Your task to perform on an android device: What is the news today? Image 0: 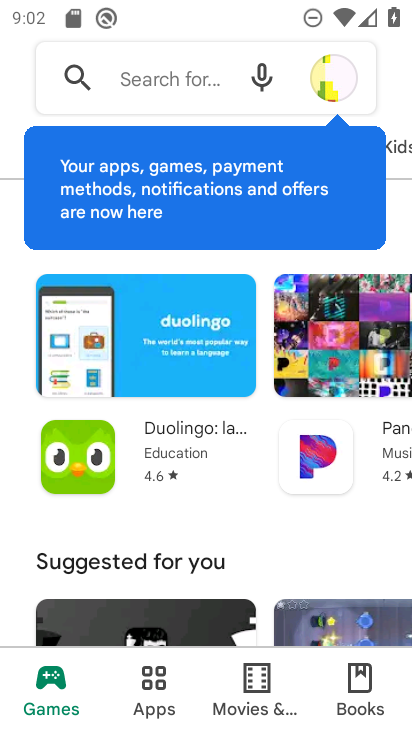
Step 0: press home button
Your task to perform on an android device: What is the news today? Image 1: 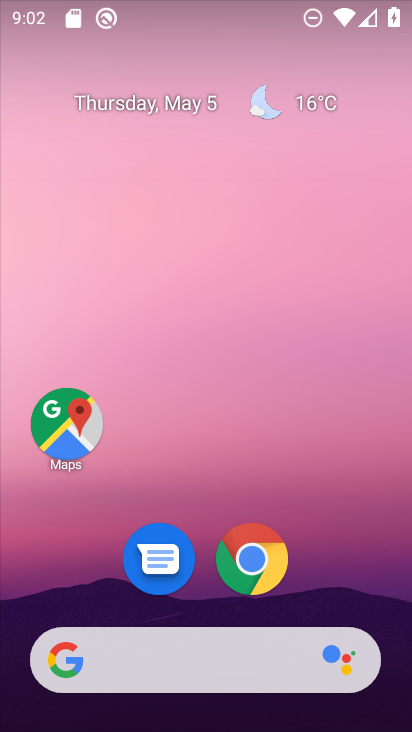
Step 1: task complete